Your task to perform on an android device: install app "Google Translate" Image 0: 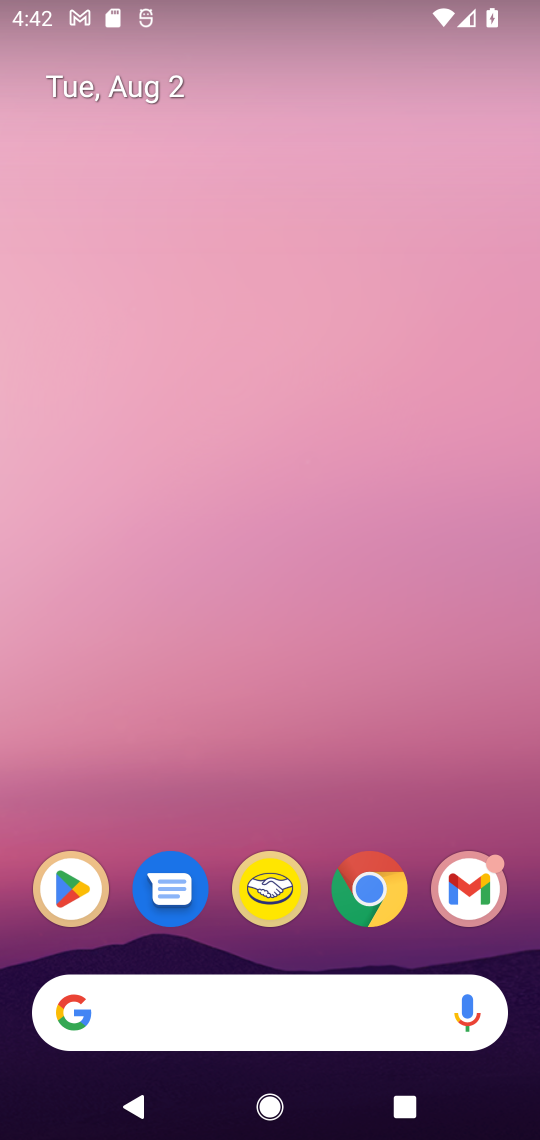
Step 0: drag from (403, 769) to (414, 166)
Your task to perform on an android device: install app "Google Translate" Image 1: 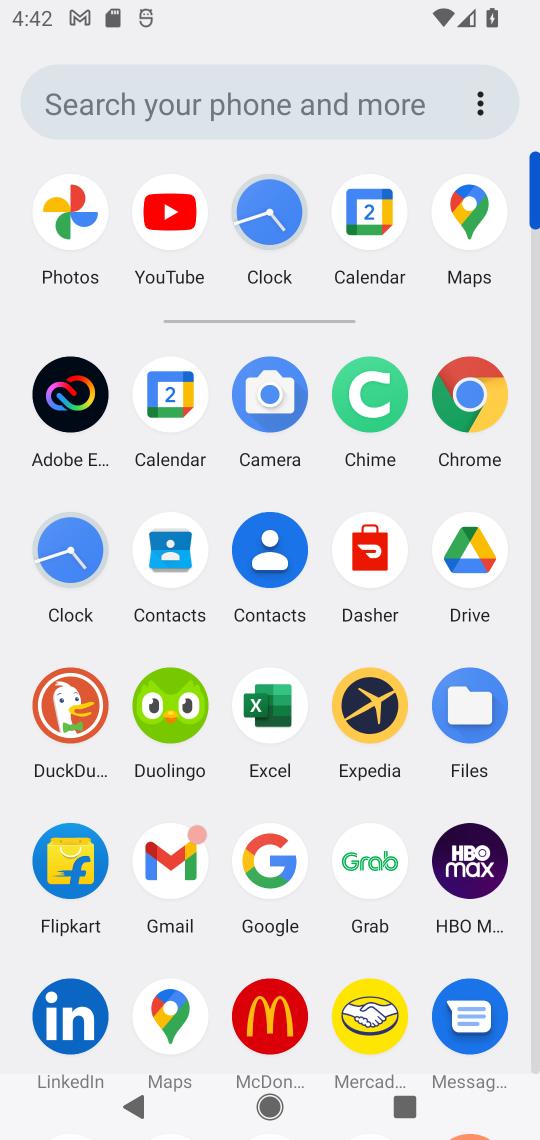
Step 1: drag from (500, 800) to (480, 396)
Your task to perform on an android device: install app "Google Translate" Image 2: 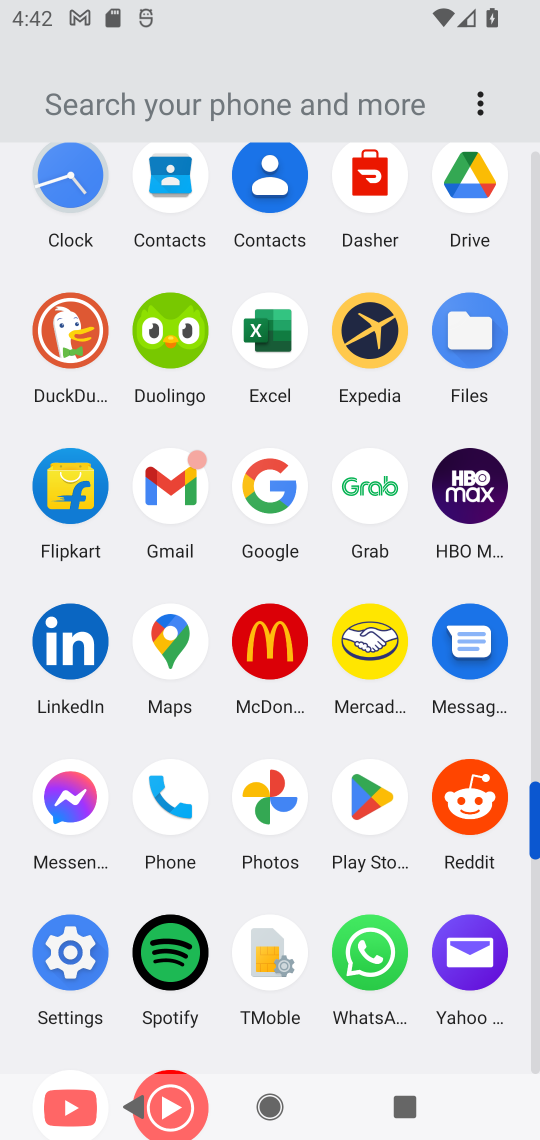
Step 2: click (368, 790)
Your task to perform on an android device: install app "Google Translate" Image 3: 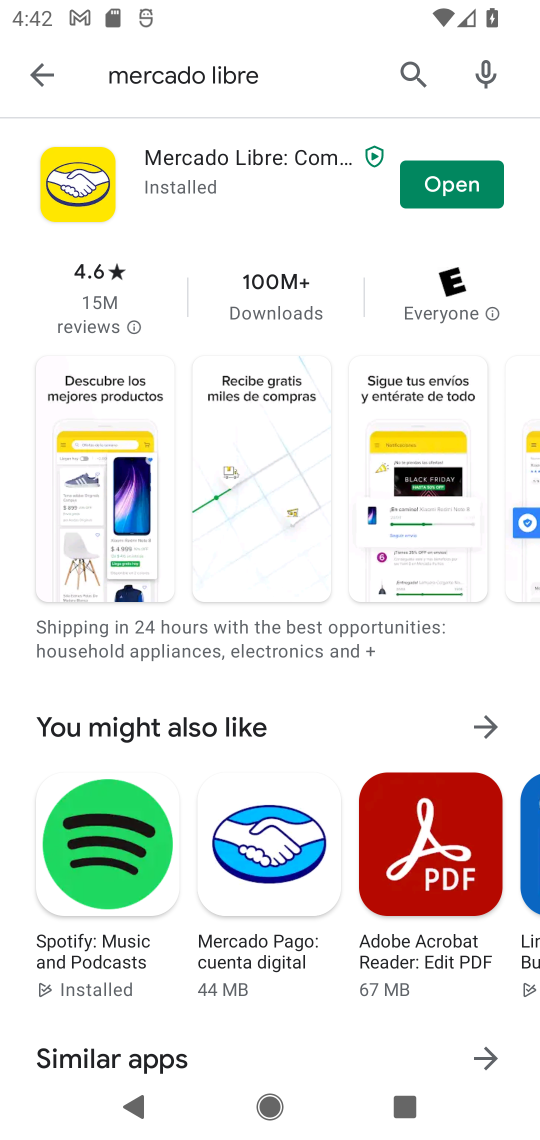
Step 3: click (413, 68)
Your task to perform on an android device: install app "Google Translate" Image 4: 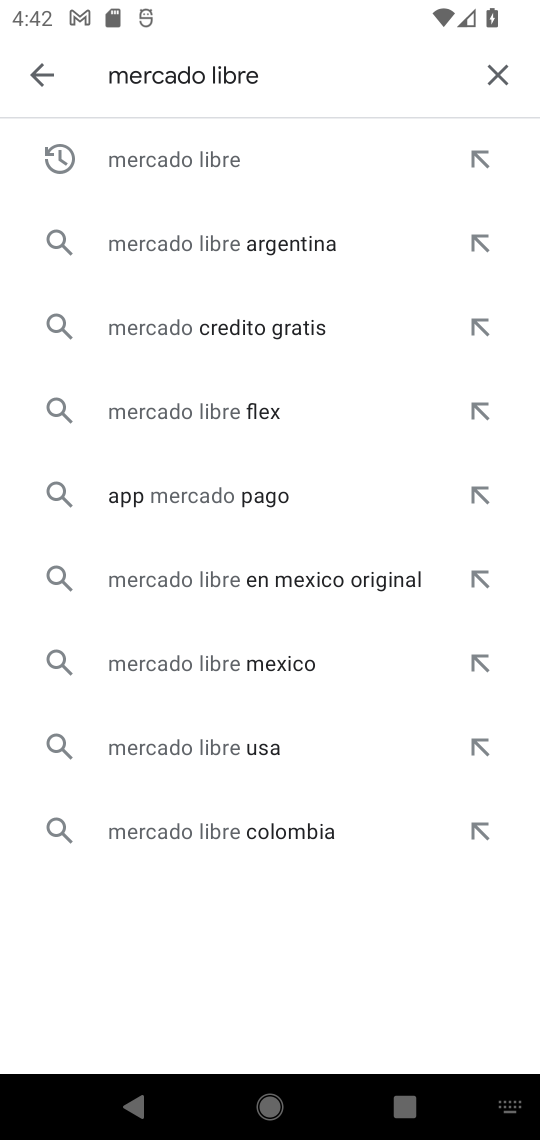
Step 4: click (491, 72)
Your task to perform on an android device: install app "Google Translate" Image 5: 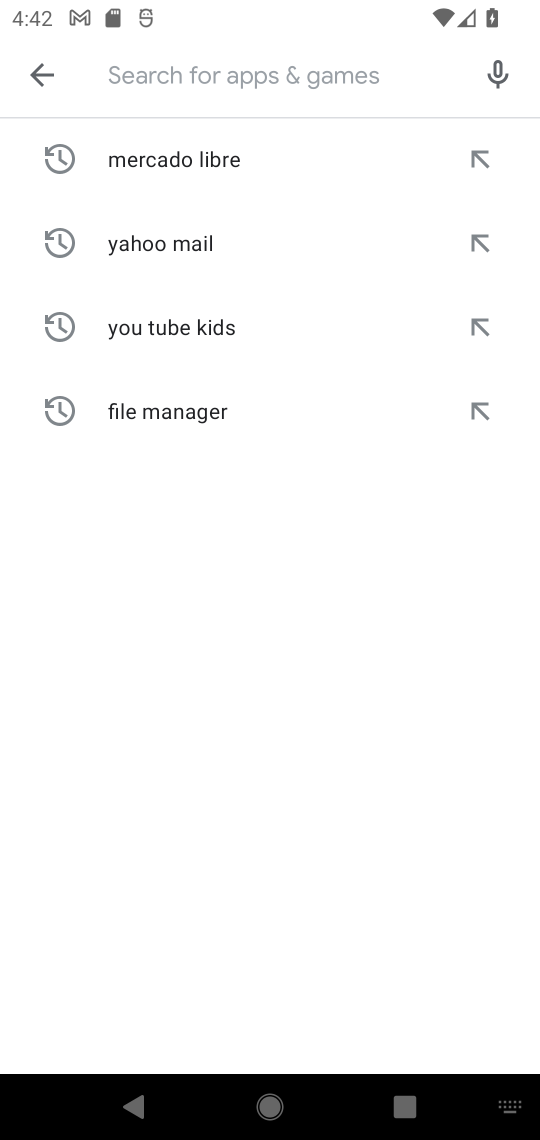
Step 5: click (363, 82)
Your task to perform on an android device: install app "Google Translate" Image 6: 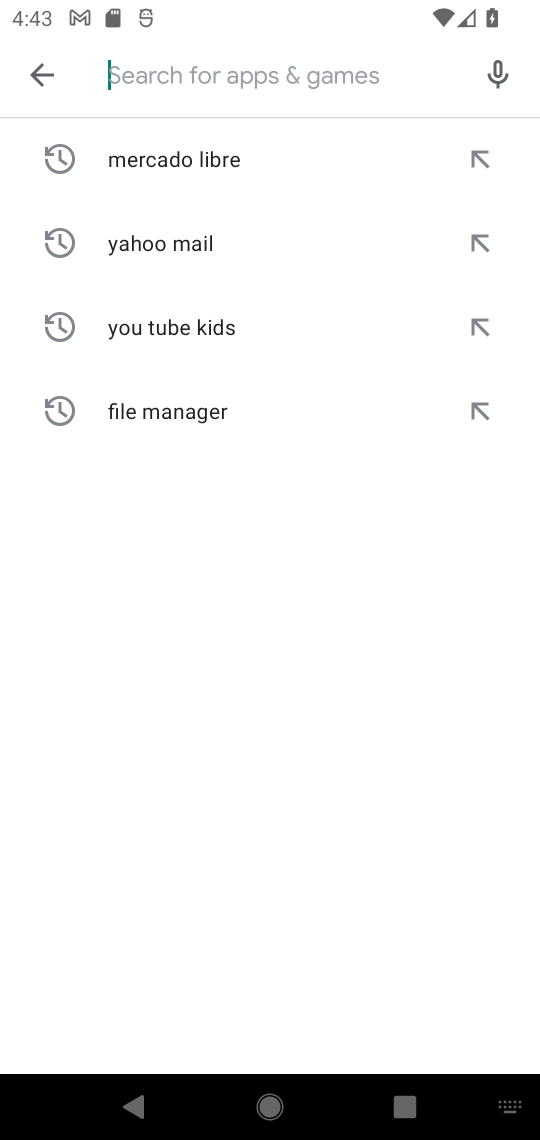
Step 6: type "google translate"
Your task to perform on an android device: install app "Google Translate" Image 7: 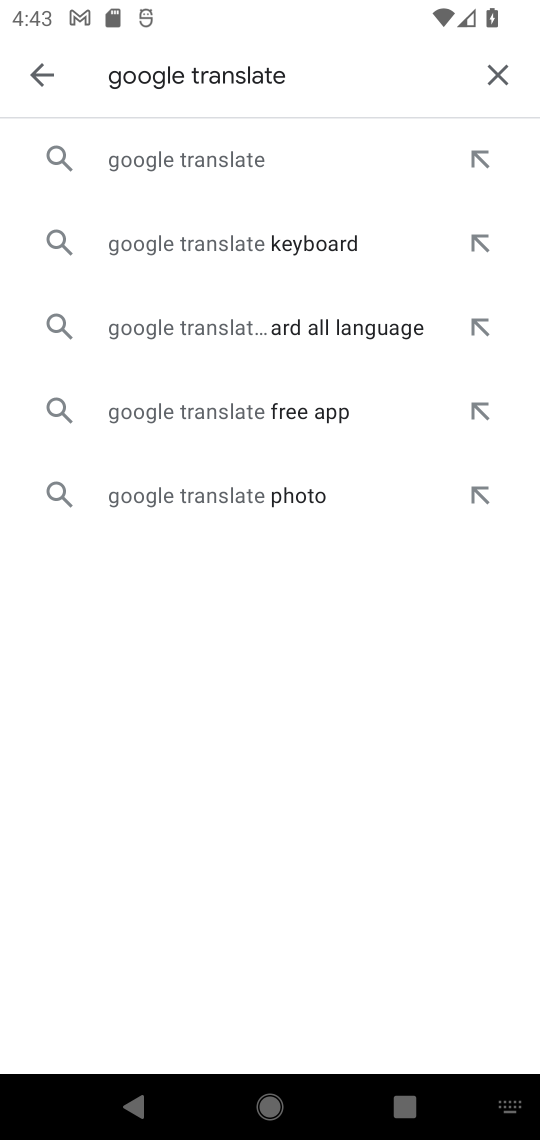
Step 7: click (286, 181)
Your task to perform on an android device: install app "Google Translate" Image 8: 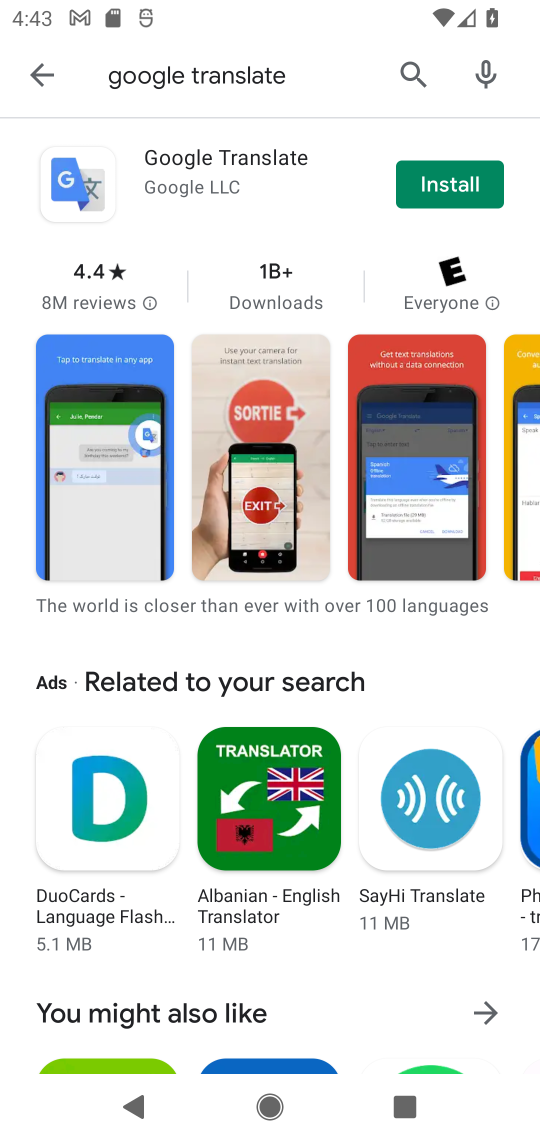
Step 8: click (476, 182)
Your task to perform on an android device: install app "Google Translate" Image 9: 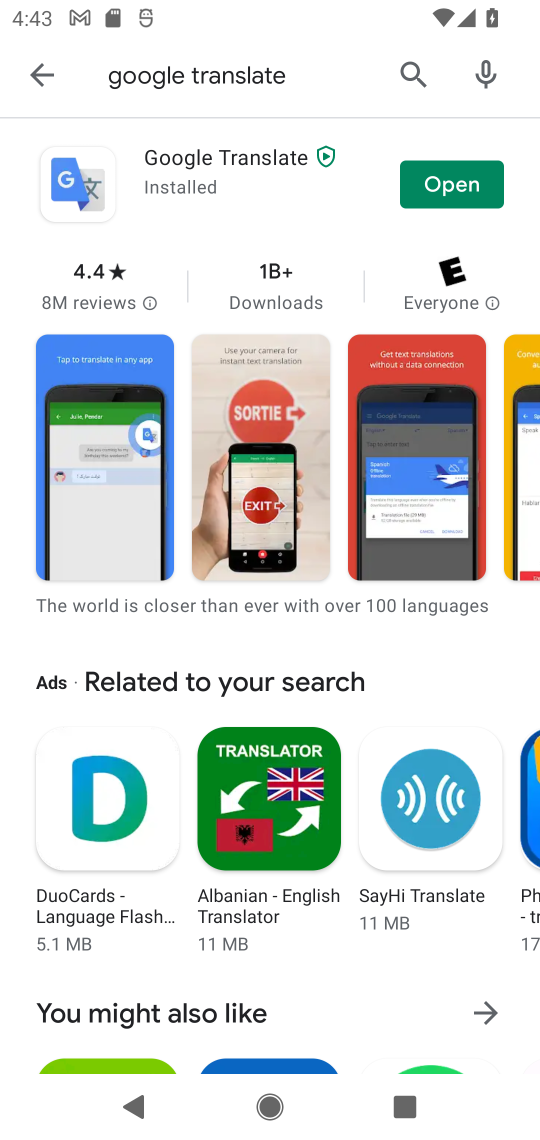
Step 9: task complete